Your task to perform on an android device: Open settings Image 0: 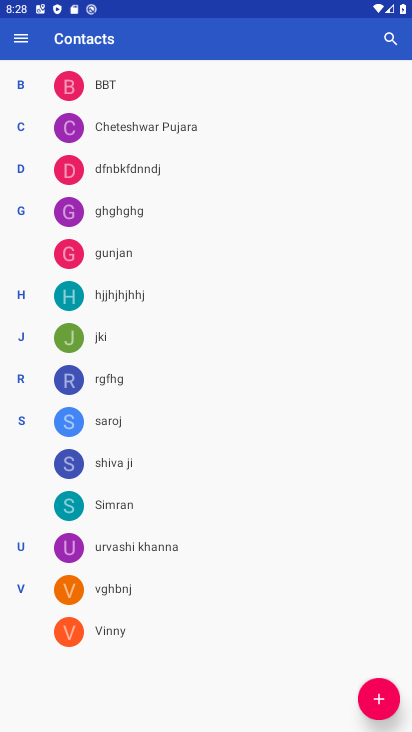
Step 0: press home button
Your task to perform on an android device: Open settings Image 1: 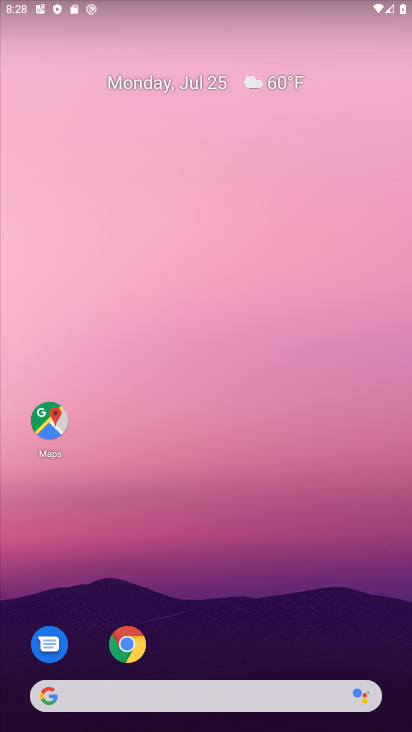
Step 1: drag from (273, 556) to (264, 157)
Your task to perform on an android device: Open settings Image 2: 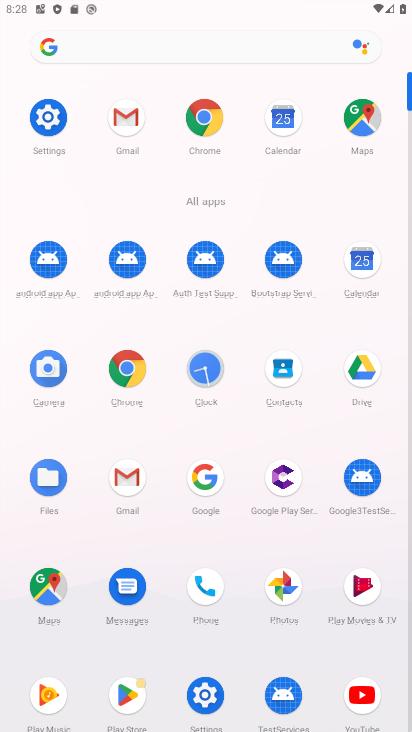
Step 2: click (207, 700)
Your task to perform on an android device: Open settings Image 3: 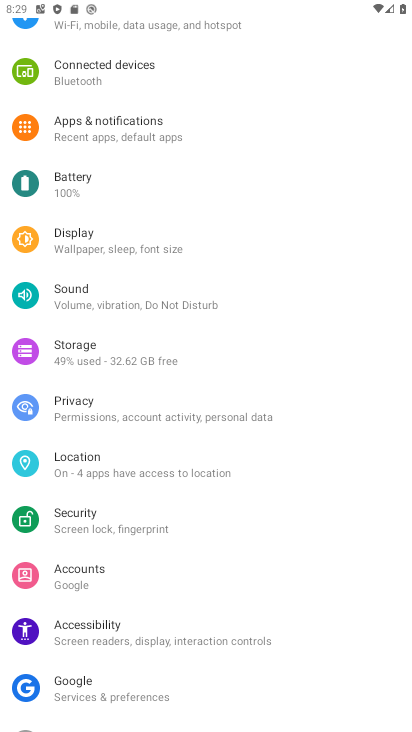
Step 3: task complete